Your task to perform on an android device: Open Wikipedia Image 0: 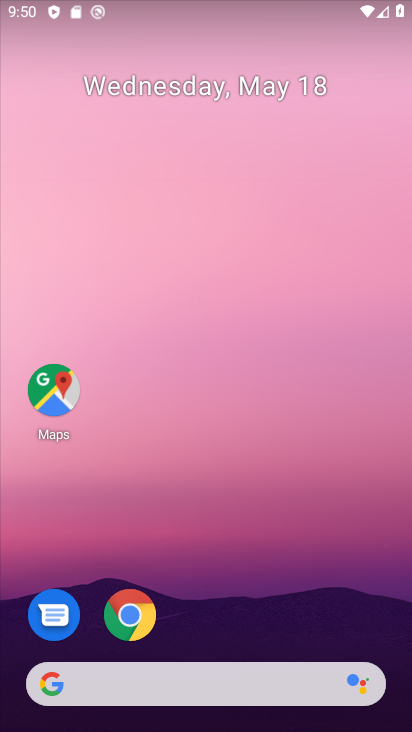
Step 0: click (123, 606)
Your task to perform on an android device: Open Wikipedia Image 1: 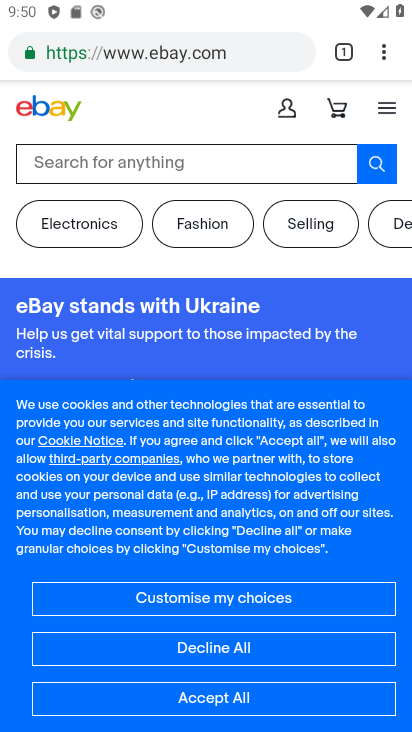
Step 1: click (348, 57)
Your task to perform on an android device: Open Wikipedia Image 2: 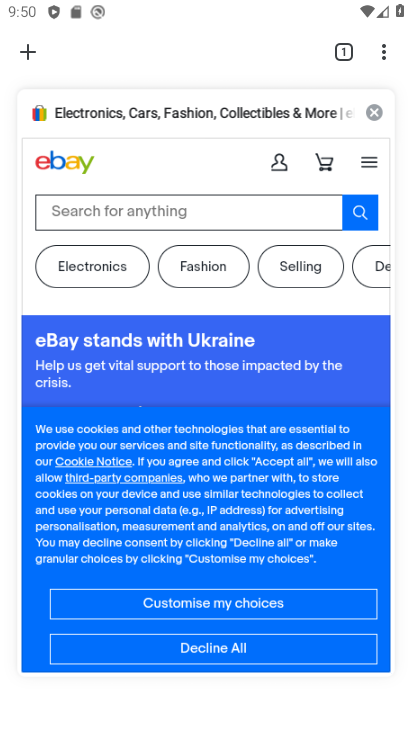
Step 2: click (376, 113)
Your task to perform on an android device: Open Wikipedia Image 3: 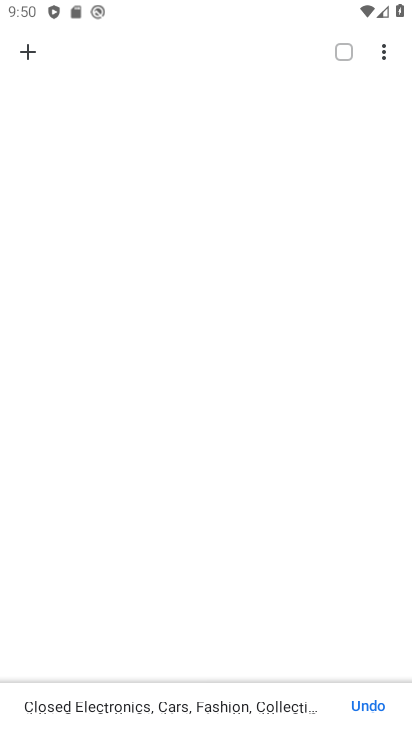
Step 3: click (36, 52)
Your task to perform on an android device: Open Wikipedia Image 4: 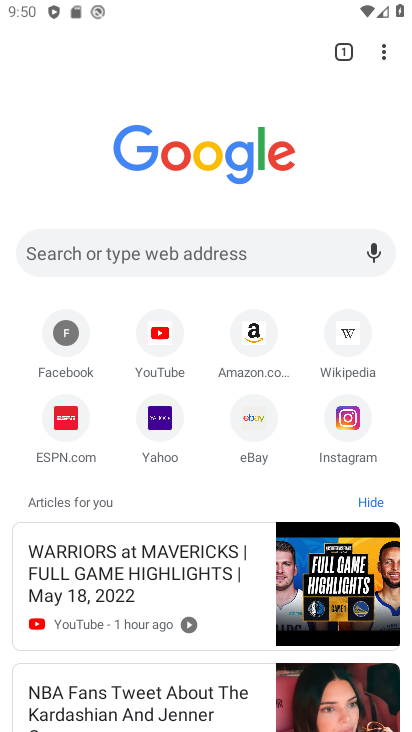
Step 4: click (347, 343)
Your task to perform on an android device: Open Wikipedia Image 5: 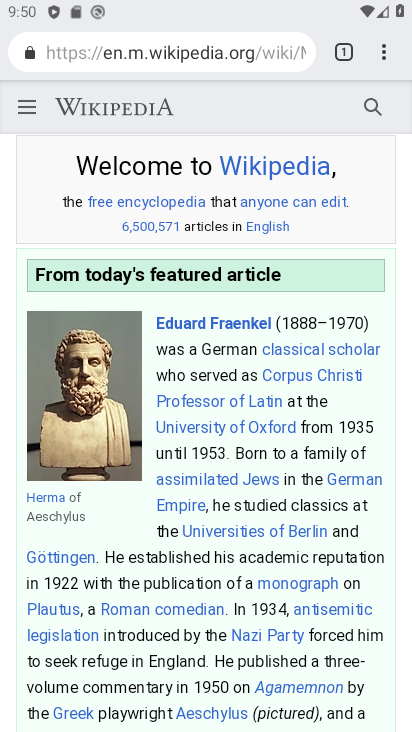
Step 5: task complete